Your task to perform on an android device: turn on showing notifications on the lock screen Image 0: 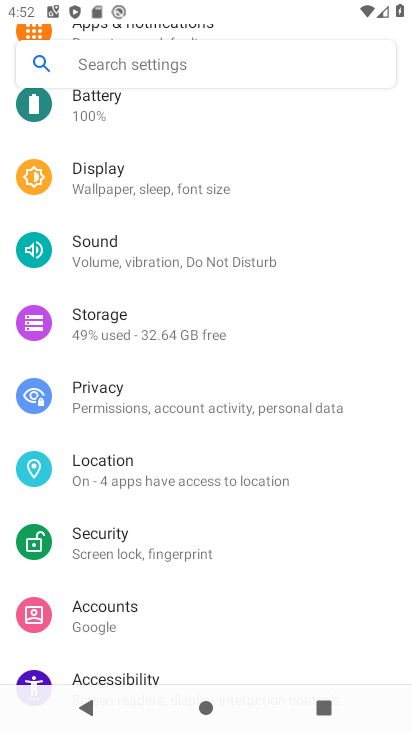
Step 0: drag from (150, 273) to (187, 461)
Your task to perform on an android device: turn on showing notifications on the lock screen Image 1: 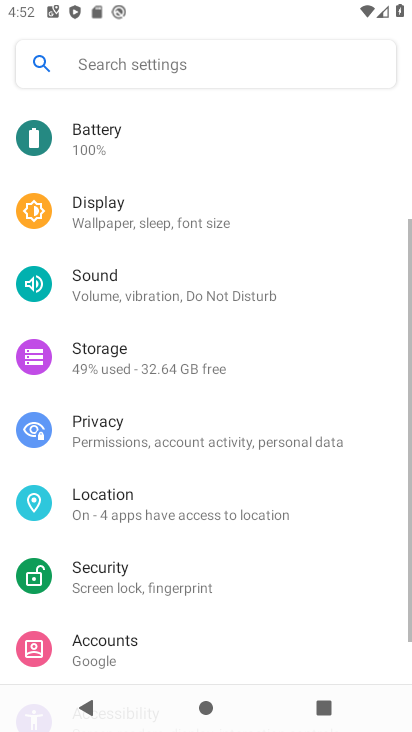
Step 1: drag from (189, 274) to (207, 483)
Your task to perform on an android device: turn on showing notifications on the lock screen Image 2: 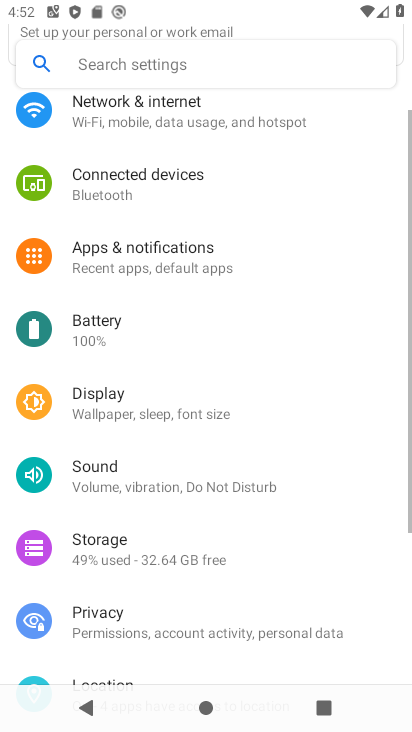
Step 2: drag from (211, 278) to (236, 490)
Your task to perform on an android device: turn on showing notifications on the lock screen Image 3: 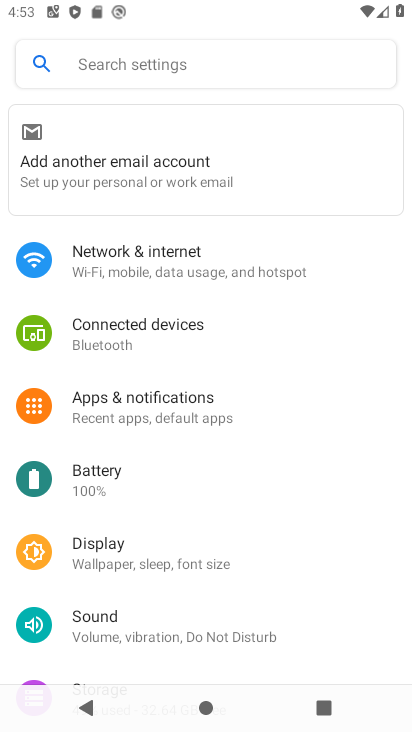
Step 3: drag from (157, 522) to (142, 248)
Your task to perform on an android device: turn on showing notifications on the lock screen Image 4: 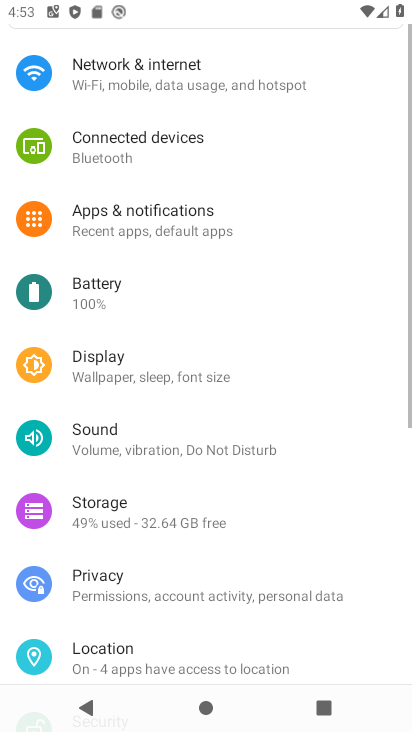
Step 4: drag from (212, 484) to (170, 171)
Your task to perform on an android device: turn on showing notifications on the lock screen Image 5: 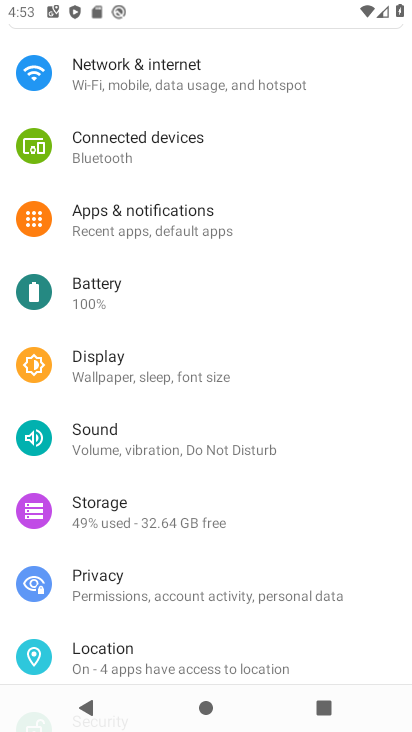
Step 5: click (145, 214)
Your task to perform on an android device: turn on showing notifications on the lock screen Image 6: 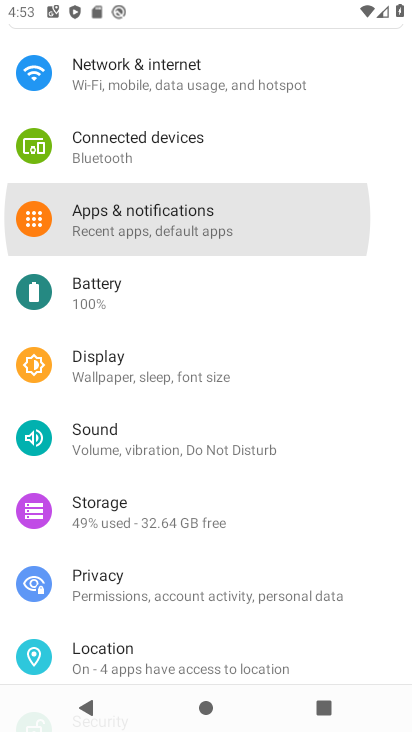
Step 6: click (143, 215)
Your task to perform on an android device: turn on showing notifications on the lock screen Image 7: 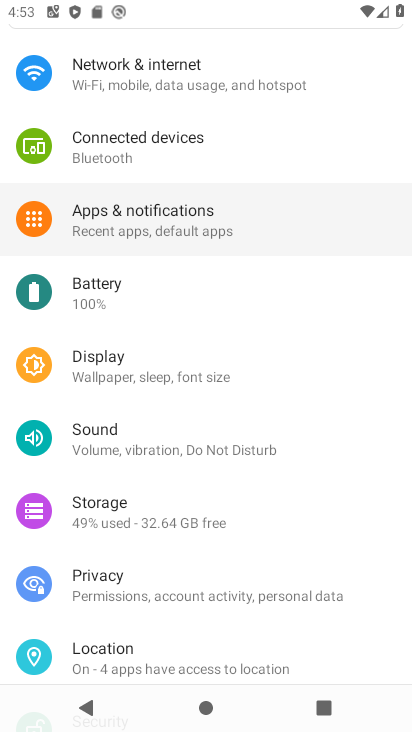
Step 7: click (142, 216)
Your task to perform on an android device: turn on showing notifications on the lock screen Image 8: 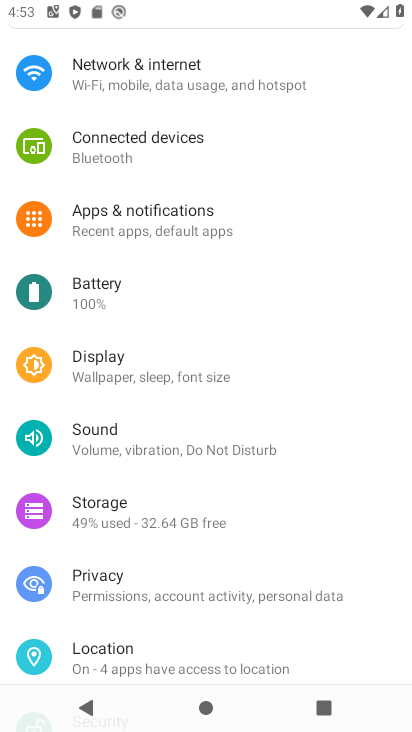
Step 8: click (139, 219)
Your task to perform on an android device: turn on showing notifications on the lock screen Image 9: 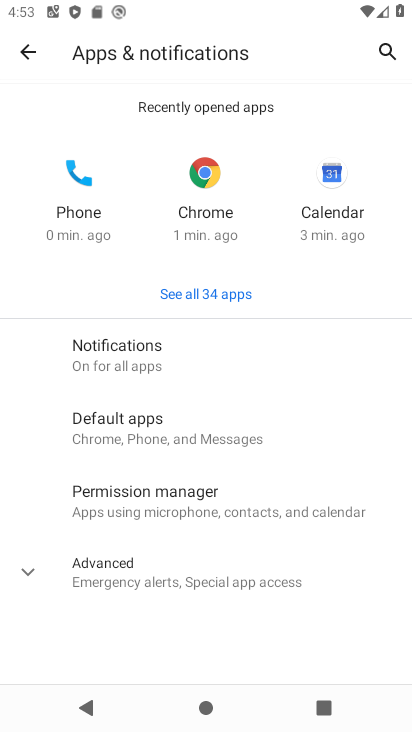
Step 9: click (108, 357)
Your task to perform on an android device: turn on showing notifications on the lock screen Image 10: 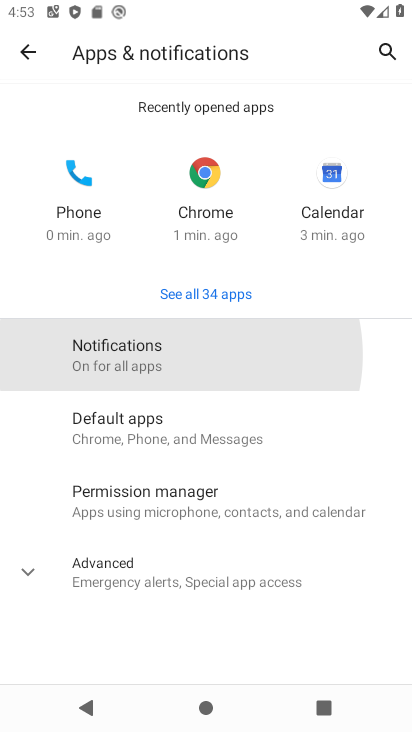
Step 10: click (110, 357)
Your task to perform on an android device: turn on showing notifications on the lock screen Image 11: 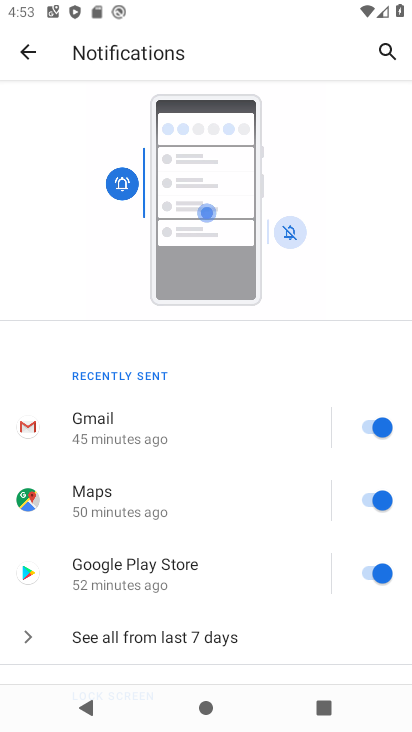
Step 11: drag from (187, 556) to (147, 250)
Your task to perform on an android device: turn on showing notifications on the lock screen Image 12: 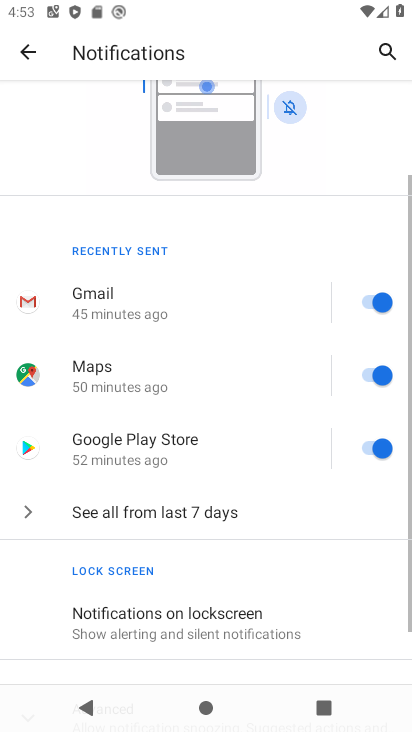
Step 12: drag from (227, 502) to (180, 137)
Your task to perform on an android device: turn on showing notifications on the lock screen Image 13: 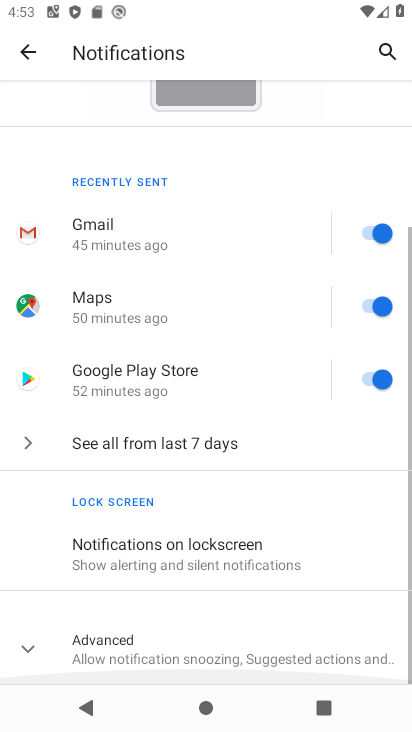
Step 13: drag from (195, 457) to (195, 197)
Your task to perform on an android device: turn on showing notifications on the lock screen Image 14: 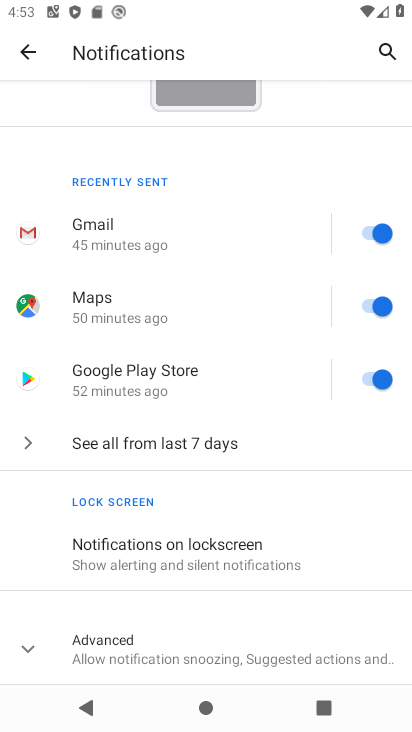
Step 14: click (146, 551)
Your task to perform on an android device: turn on showing notifications on the lock screen Image 15: 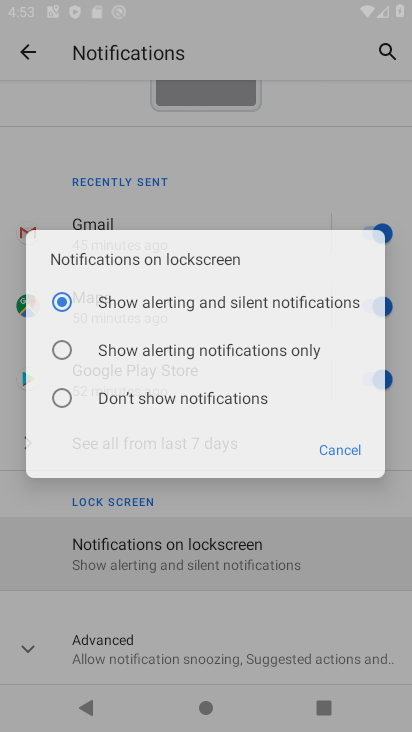
Step 15: click (146, 551)
Your task to perform on an android device: turn on showing notifications on the lock screen Image 16: 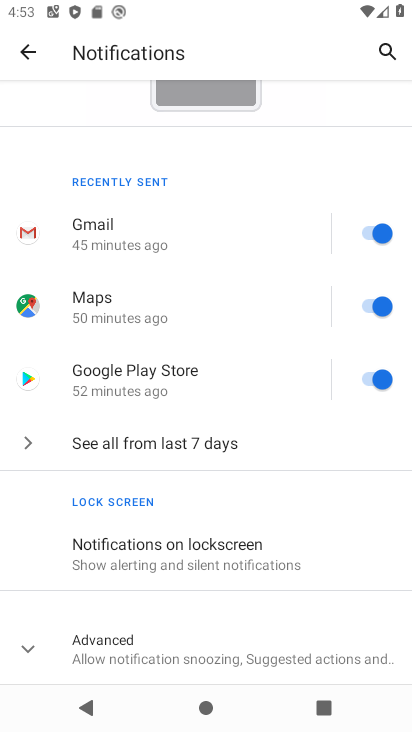
Step 16: click (156, 542)
Your task to perform on an android device: turn on showing notifications on the lock screen Image 17: 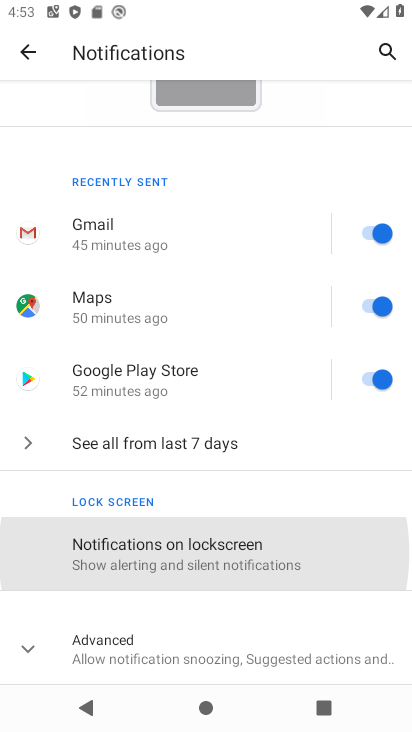
Step 17: click (153, 546)
Your task to perform on an android device: turn on showing notifications on the lock screen Image 18: 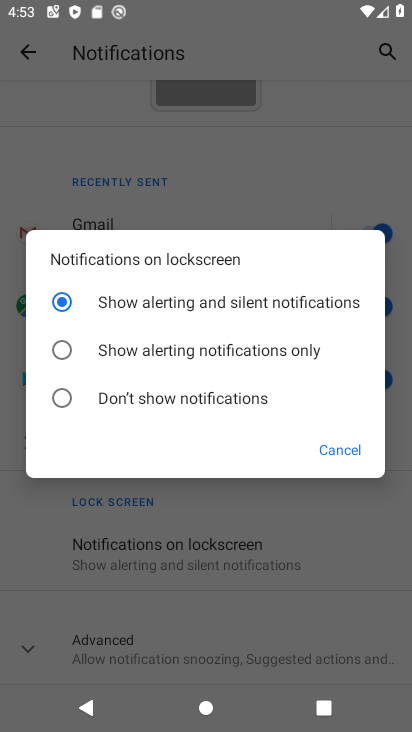
Step 18: click (151, 556)
Your task to perform on an android device: turn on showing notifications on the lock screen Image 19: 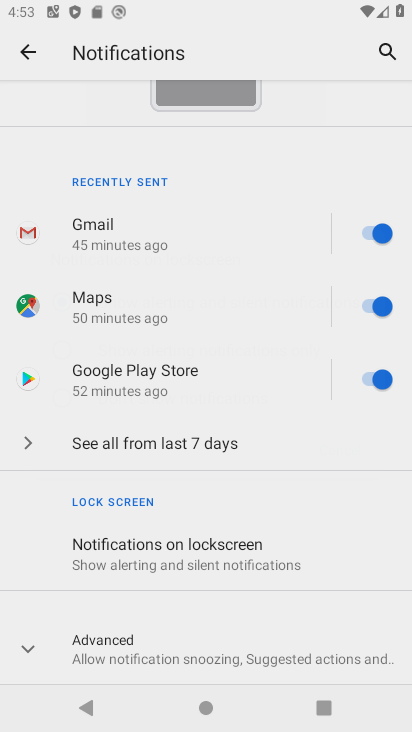
Step 19: click (151, 556)
Your task to perform on an android device: turn on showing notifications on the lock screen Image 20: 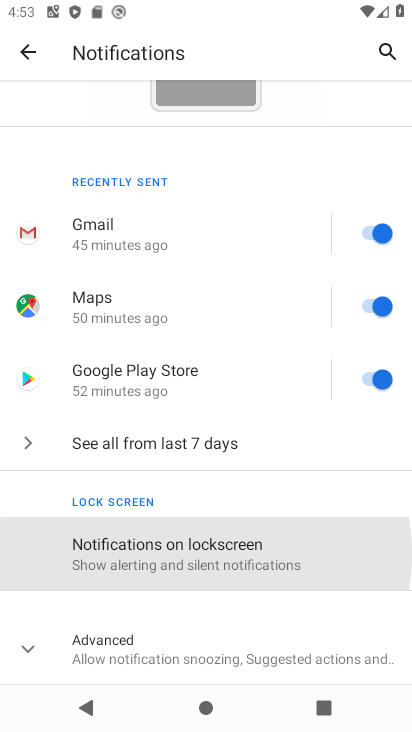
Step 20: click (155, 562)
Your task to perform on an android device: turn on showing notifications on the lock screen Image 21: 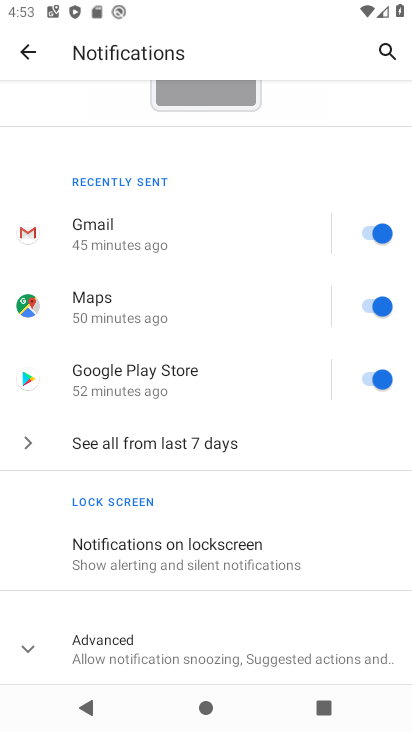
Step 21: task complete